Your task to perform on an android device: add a label to a message in the gmail app Image 0: 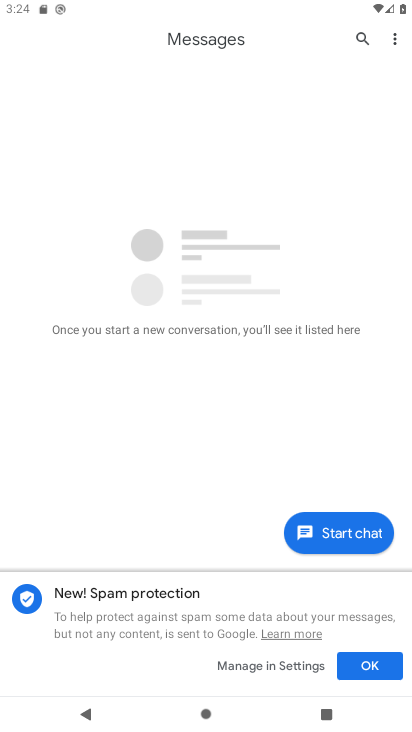
Step 0: press home button
Your task to perform on an android device: add a label to a message in the gmail app Image 1: 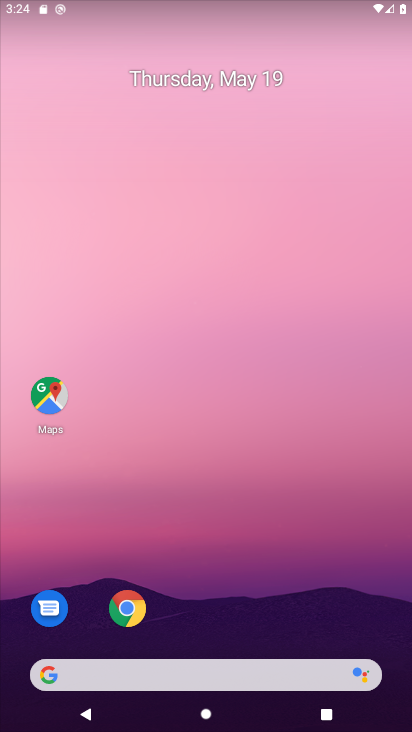
Step 1: drag from (159, 655) to (151, 230)
Your task to perform on an android device: add a label to a message in the gmail app Image 2: 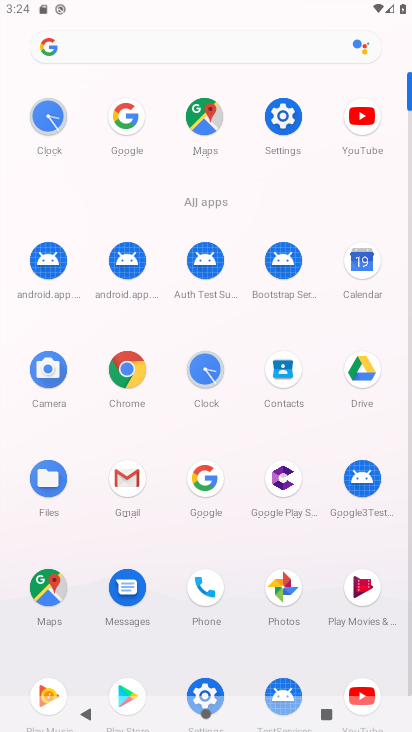
Step 2: click (123, 483)
Your task to perform on an android device: add a label to a message in the gmail app Image 3: 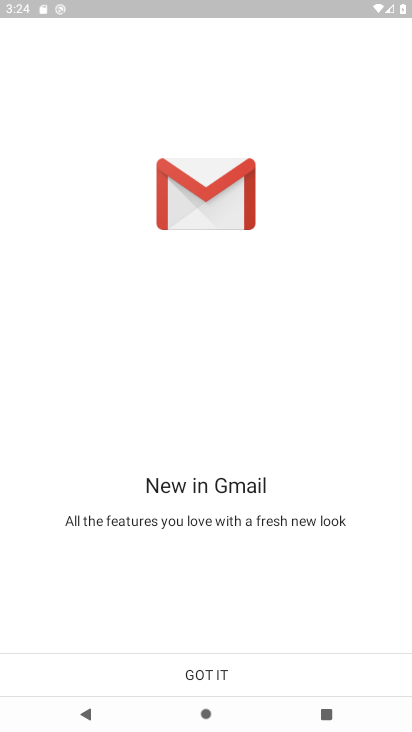
Step 3: click (210, 681)
Your task to perform on an android device: add a label to a message in the gmail app Image 4: 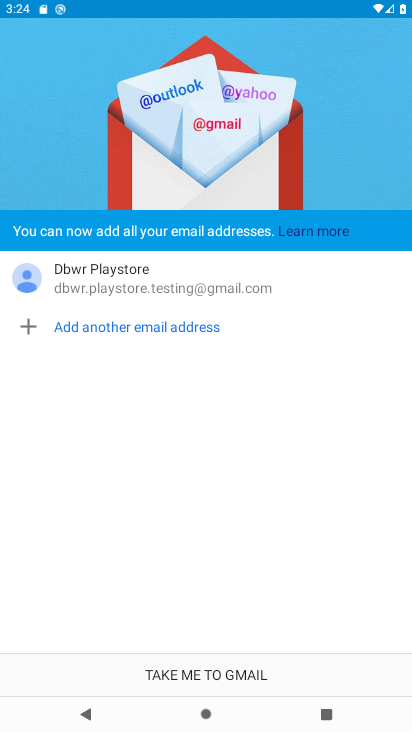
Step 4: click (220, 675)
Your task to perform on an android device: add a label to a message in the gmail app Image 5: 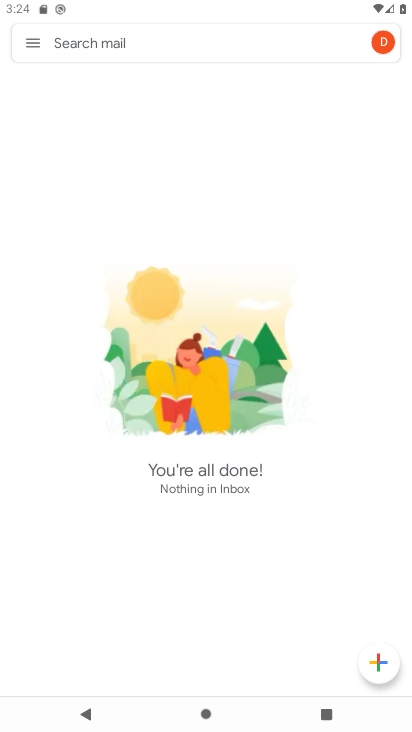
Step 5: task complete